Your task to perform on an android device: open a bookmark in the chrome app Image 0: 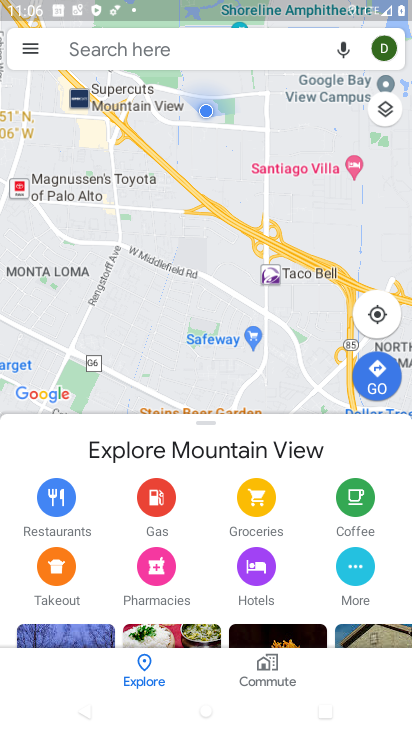
Step 0: press home button
Your task to perform on an android device: open a bookmark in the chrome app Image 1: 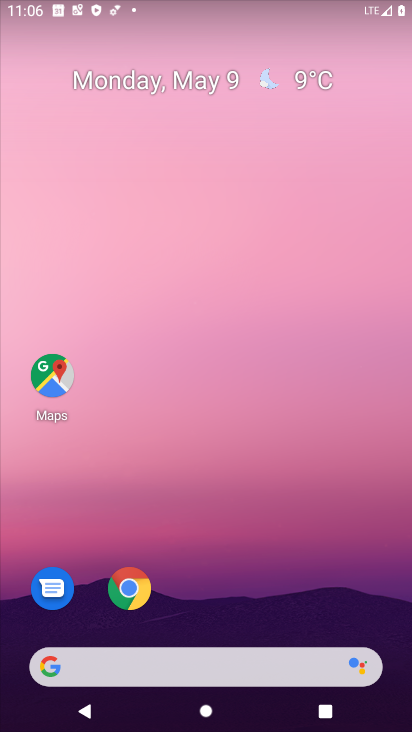
Step 1: drag from (182, 651) to (278, 217)
Your task to perform on an android device: open a bookmark in the chrome app Image 2: 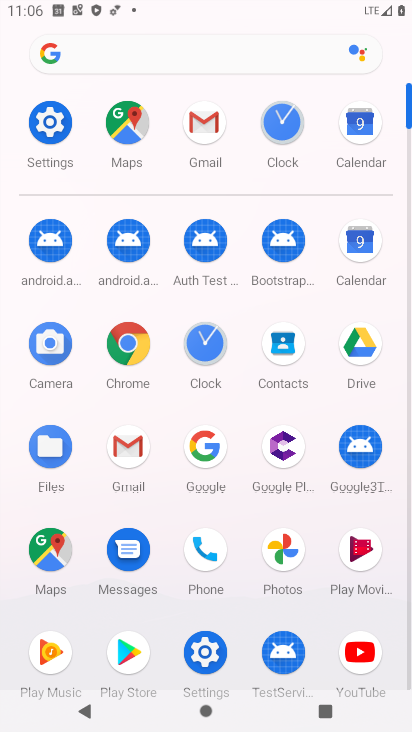
Step 2: click (125, 357)
Your task to perform on an android device: open a bookmark in the chrome app Image 3: 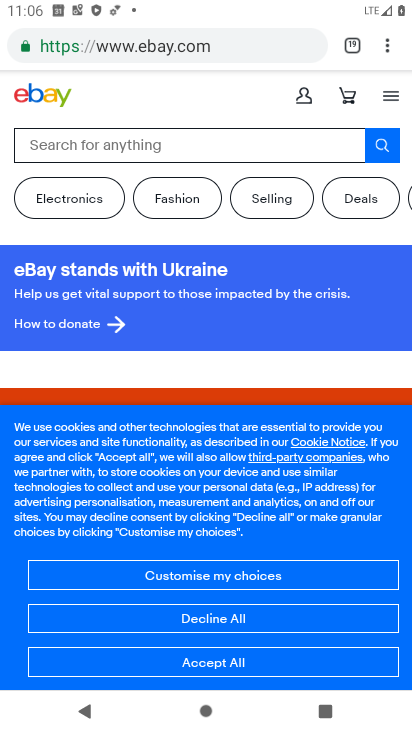
Step 3: task complete